Your task to perform on an android device: Open location settings Image 0: 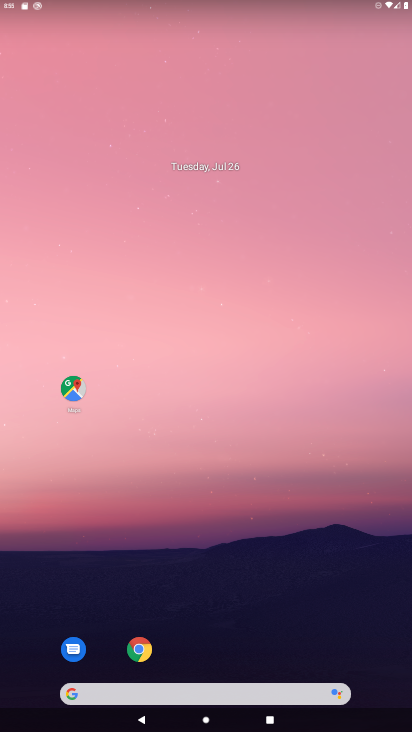
Step 0: drag from (205, 645) to (223, 143)
Your task to perform on an android device: Open location settings Image 1: 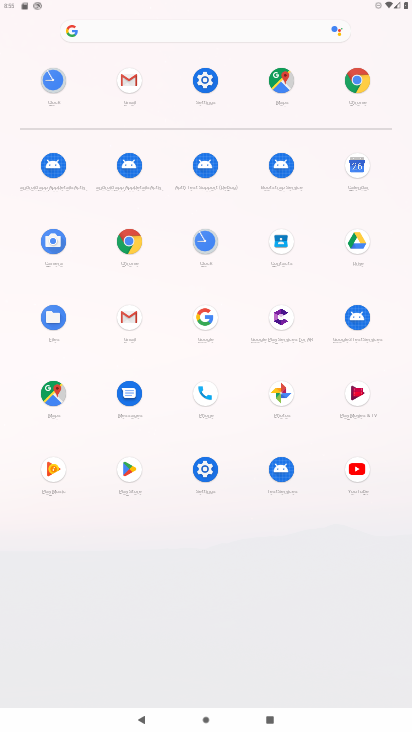
Step 1: click (198, 86)
Your task to perform on an android device: Open location settings Image 2: 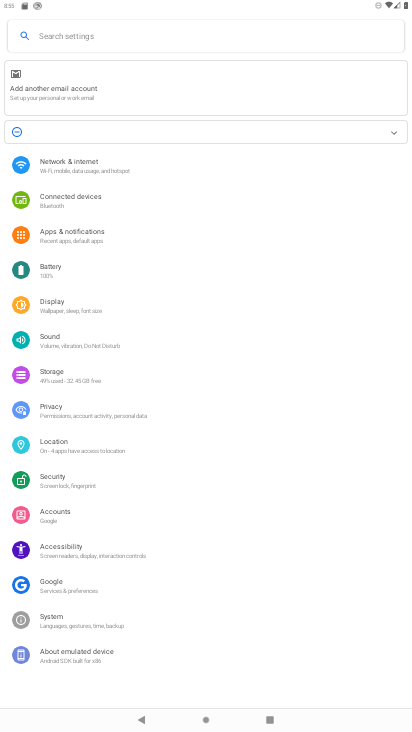
Step 2: click (57, 449)
Your task to perform on an android device: Open location settings Image 3: 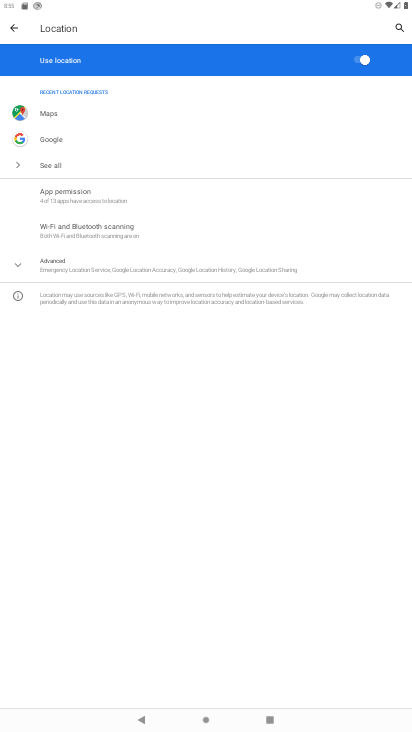
Step 3: task complete